Your task to perform on an android device: Open CNN.com Image 0: 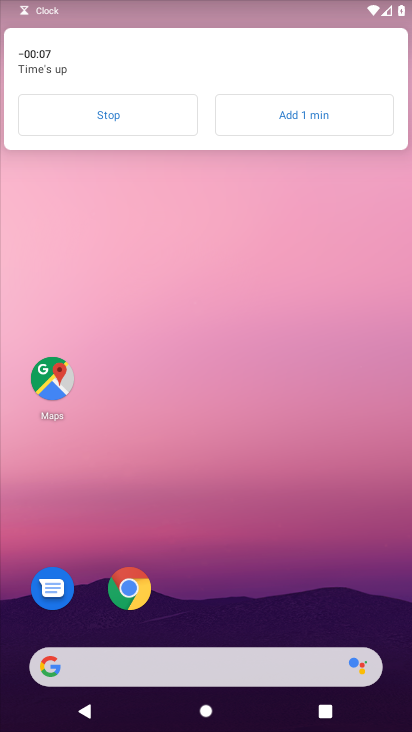
Step 0: click (126, 588)
Your task to perform on an android device: Open CNN.com Image 1: 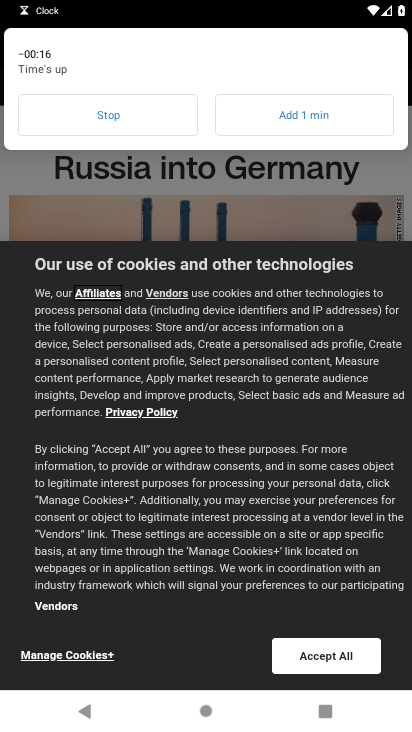
Step 1: click (105, 111)
Your task to perform on an android device: Open CNN.com Image 2: 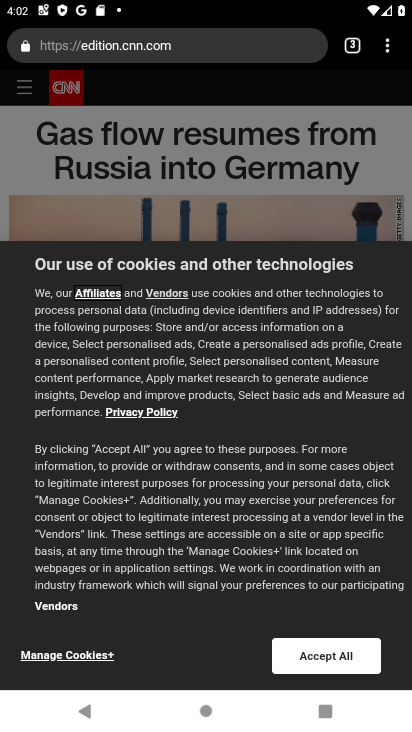
Step 2: task complete